Your task to perform on an android device: Clear all items from cart on bestbuy.com. Search for bose soundlink on bestbuy.com, select the first entry, and add it to the cart. Image 0: 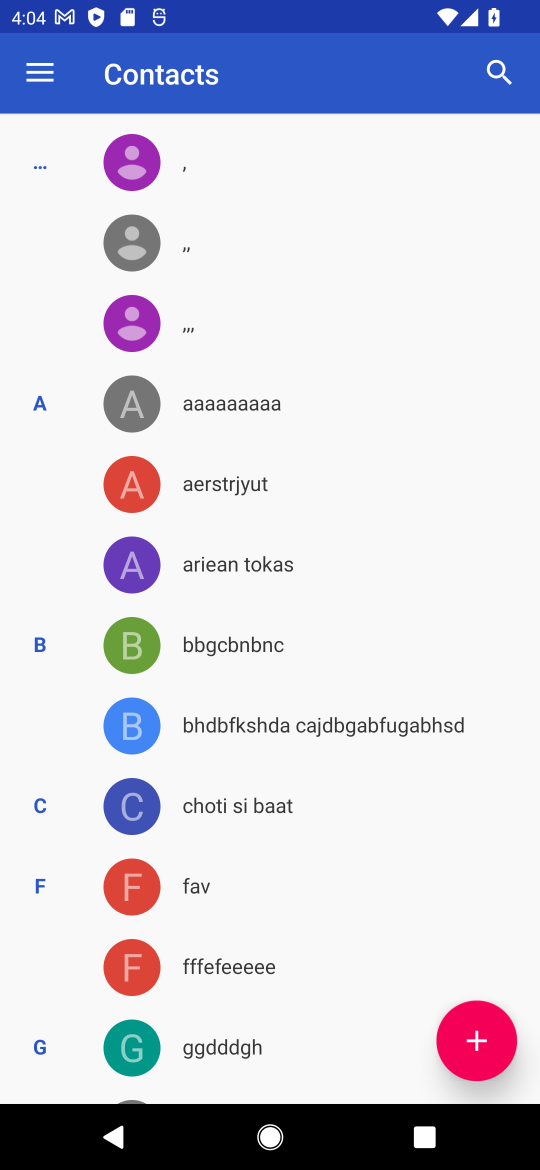
Step 0: press home button
Your task to perform on an android device: Clear all items from cart on bestbuy.com. Search for bose soundlink on bestbuy.com, select the first entry, and add it to the cart. Image 1: 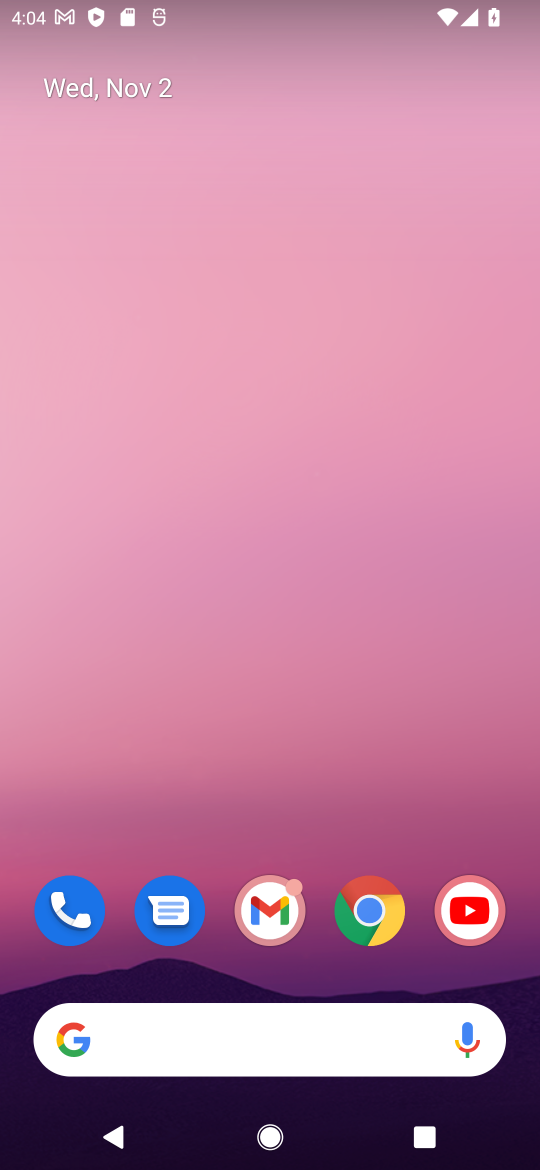
Step 1: click (363, 936)
Your task to perform on an android device: Clear all items from cart on bestbuy.com. Search for bose soundlink on bestbuy.com, select the first entry, and add it to the cart. Image 2: 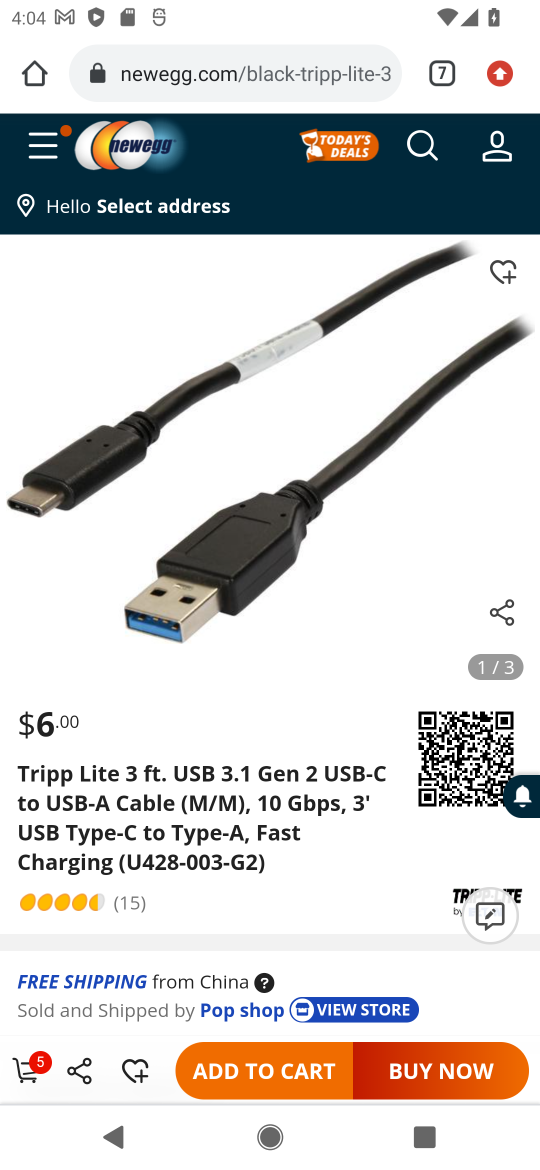
Step 2: press home button
Your task to perform on an android device: Clear all items from cart on bestbuy.com. Search for bose soundlink on bestbuy.com, select the first entry, and add it to the cart. Image 3: 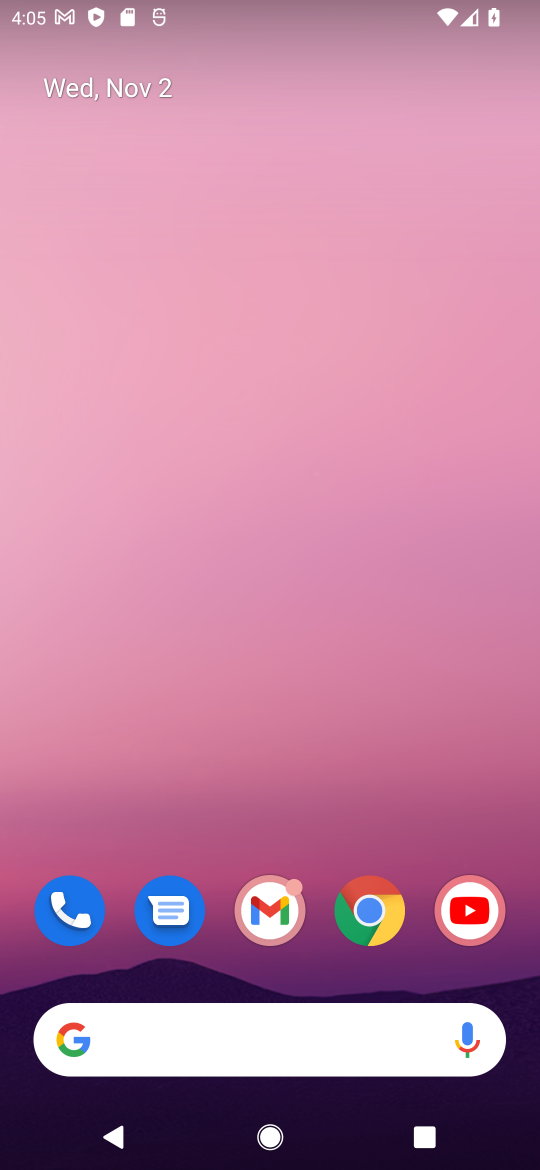
Step 3: click (383, 912)
Your task to perform on an android device: Clear all items from cart on bestbuy.com. Search for bose soundlink on bestbuy.com, select the first entry, and add it to the cart. Image 4: 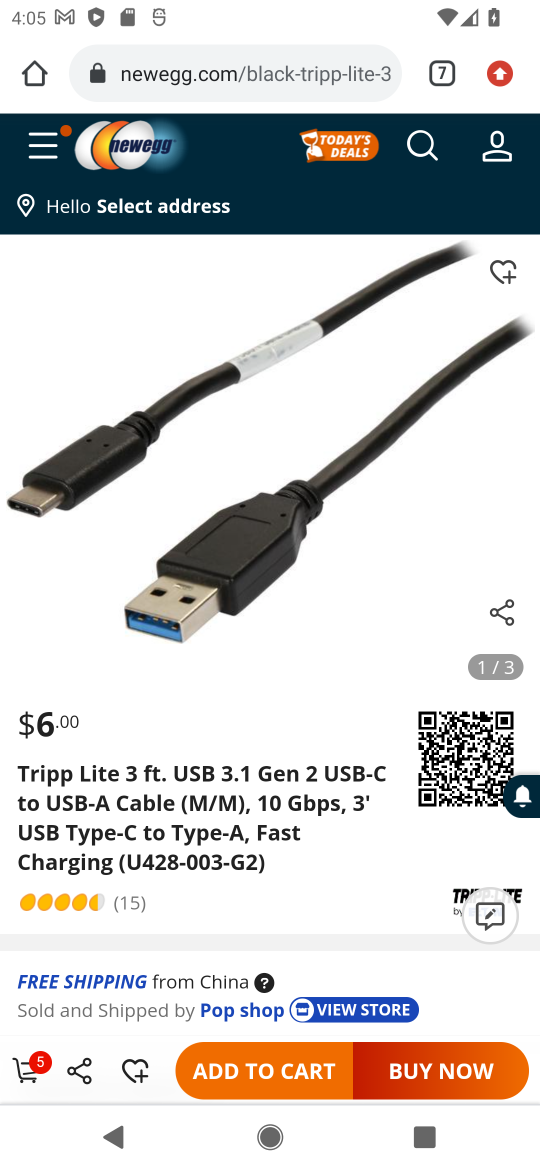
Step 4: click (446, 69)
Your task to perform on an android device: Clear all items from cart on bestbuy.com. Search for bose soundlink on bestbuy.com, select the first entry, and add it to the cart. Image 5: 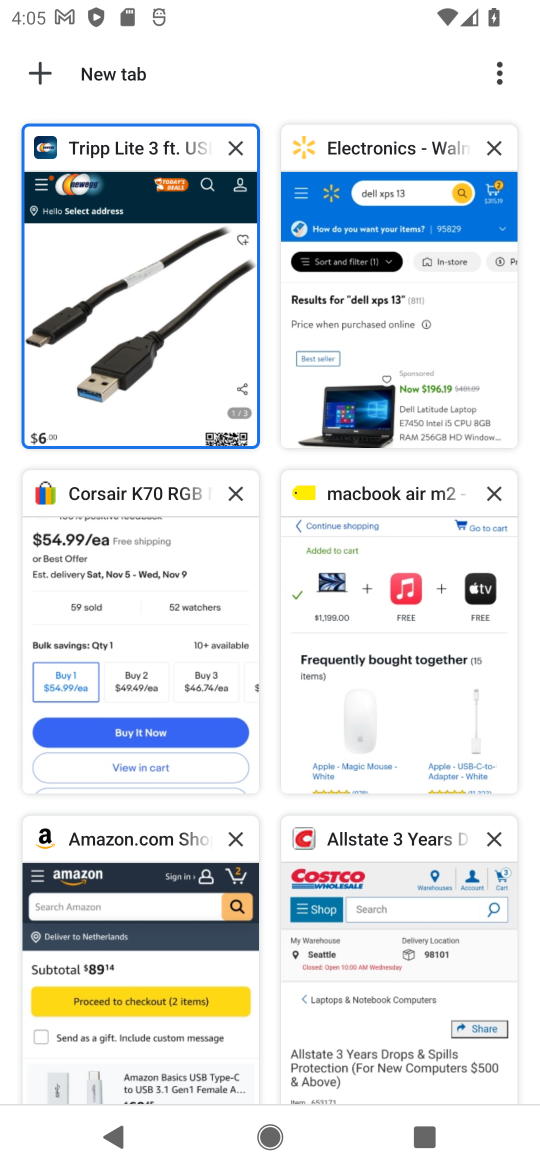
Step 5: click (387, 668)
Your task to perform on an android device: Clear all items from cart on bestbuy.com. Search for bose soundlink on bestbuy.com, select the first entry, and add it to the cart. Image 6: 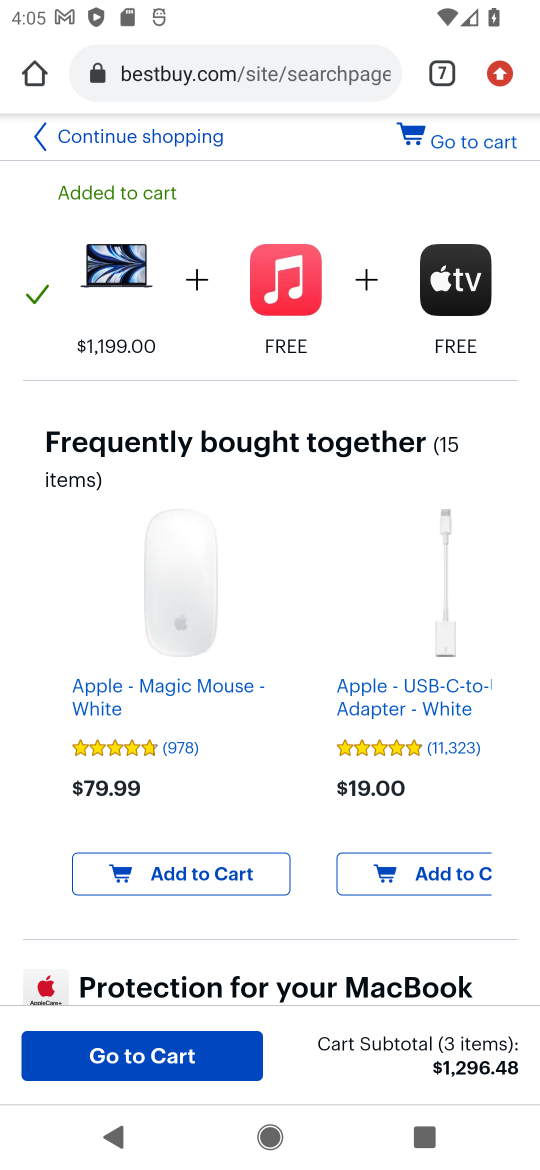
Step 6: click (455, 136)
Your task to perform on an android device: Clear all items from cart on bestbuy.com. Search for bose soundlink on bestbuy.com, select the first entry, and add it to the cart. Image 7: 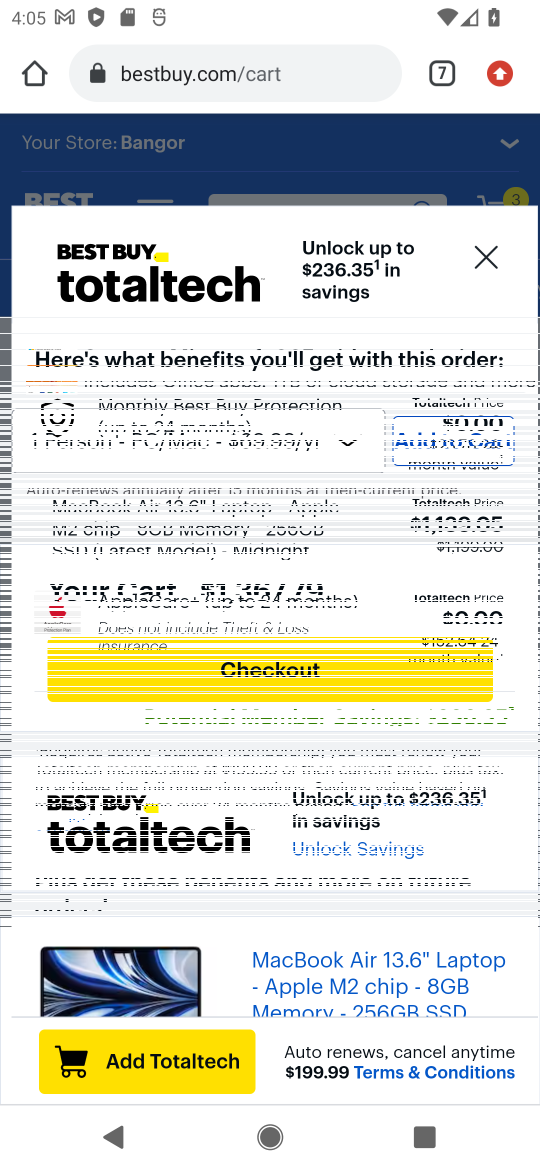
Step 7: click (490, 251)
Your task to perform on an android device: Clear all items from cart on bestbuy.com. Search for bose soundlink on bestbuy.com, select the first entry, and add it to the cart. Image 8: 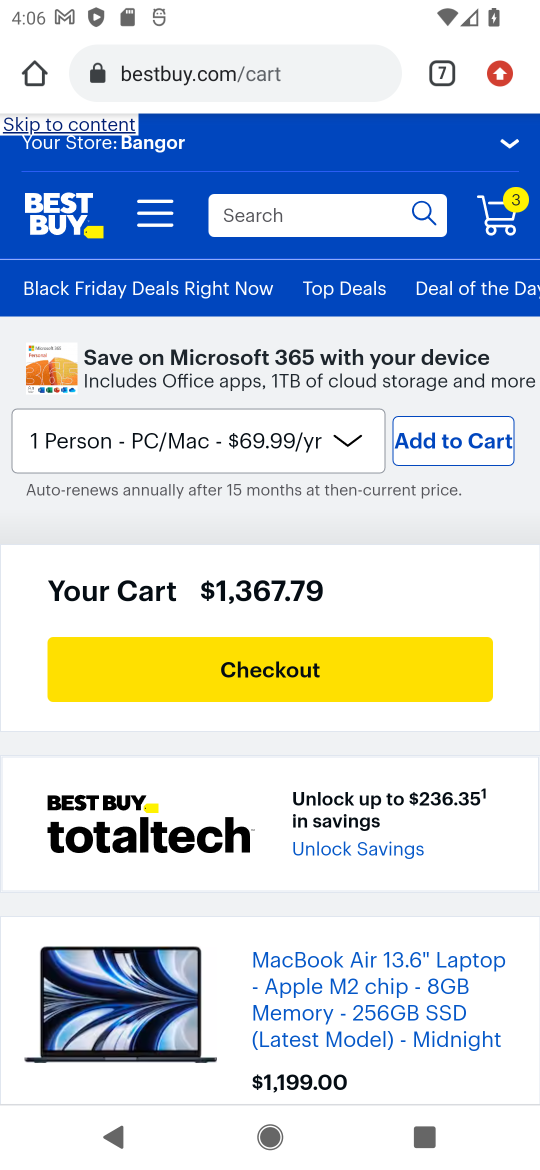
Step 8: drag from (304, 892) to (377, 259)
Your task to perform on an android device: Clear all items from cart on bestbuy.com. Search for bose soundlink on bestbuy.com, select the first entry, and add it to the cart. Image 9: 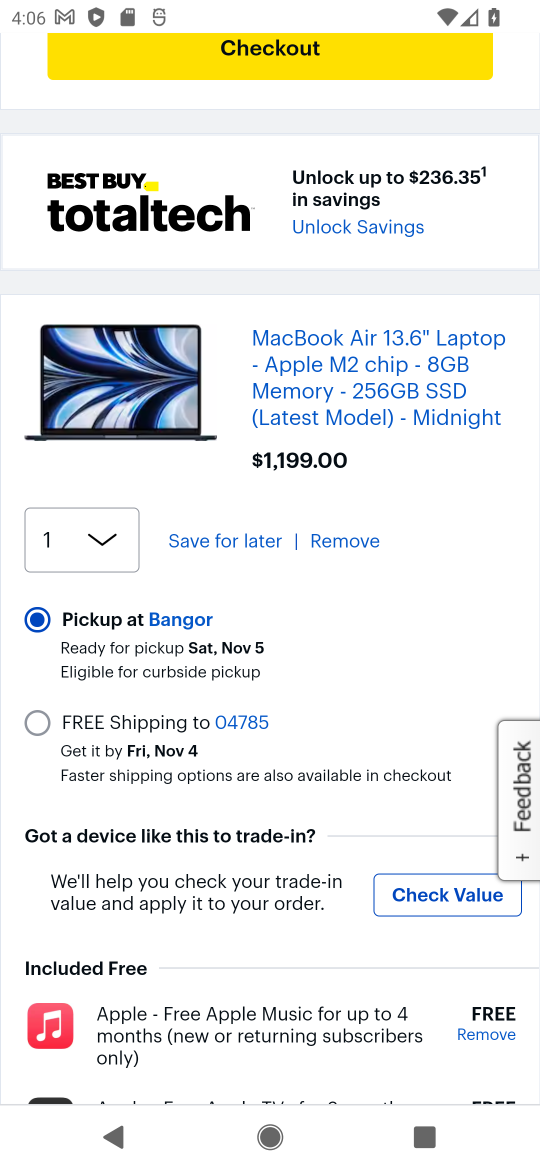
Step 9: click (341, 542)
Your task to perform on an android device: Clear all items from cart on bestbuy.com. Search for bose soundlink on bestbuy.com, select the first entry, and add it to the cart. Image 10: 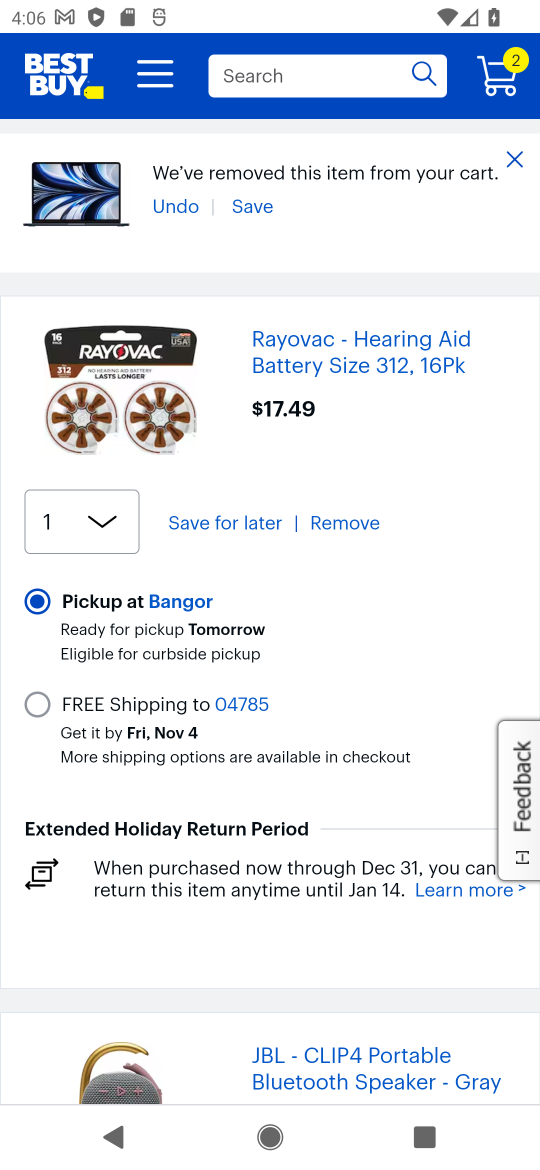
Step 10: click (360, 520)
Your task to perform on an android device: Clear all items from cart on bestbuy.com. Search for bose soundlink on bestbuy.com, select the first entry, and add it to the cart. Image 11: 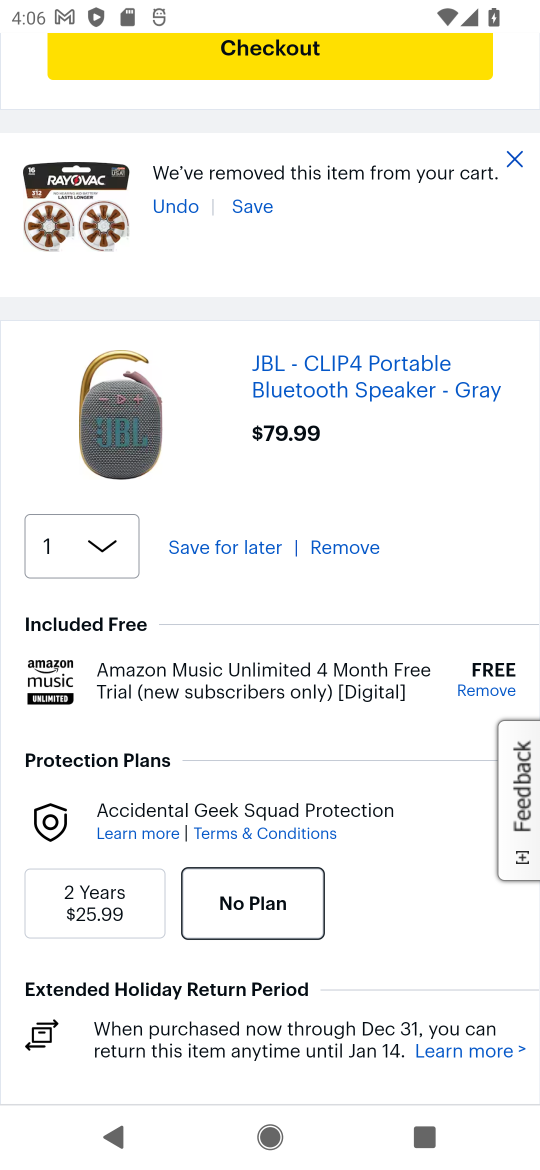
Step 11: click (350, 548)
Your task to perform on an android device: Clear all items from cart on bestbuy.com. Search for bose soundlink on bestbuy.com, select the first entry, and add it to the cart. Image 12: 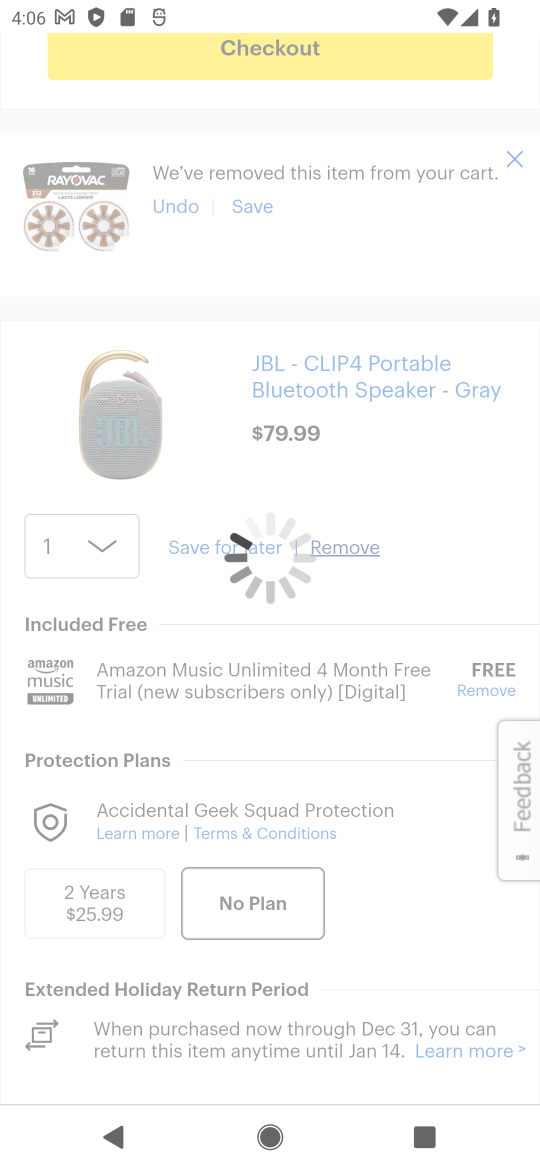
Step 12: click (350, 548)
Your task to perform on an android device: Clear all items from cart on bestbuy.com. Search for bose soundlink on bestbuy.com, select the first entry, and add it to the cart. Image 13: 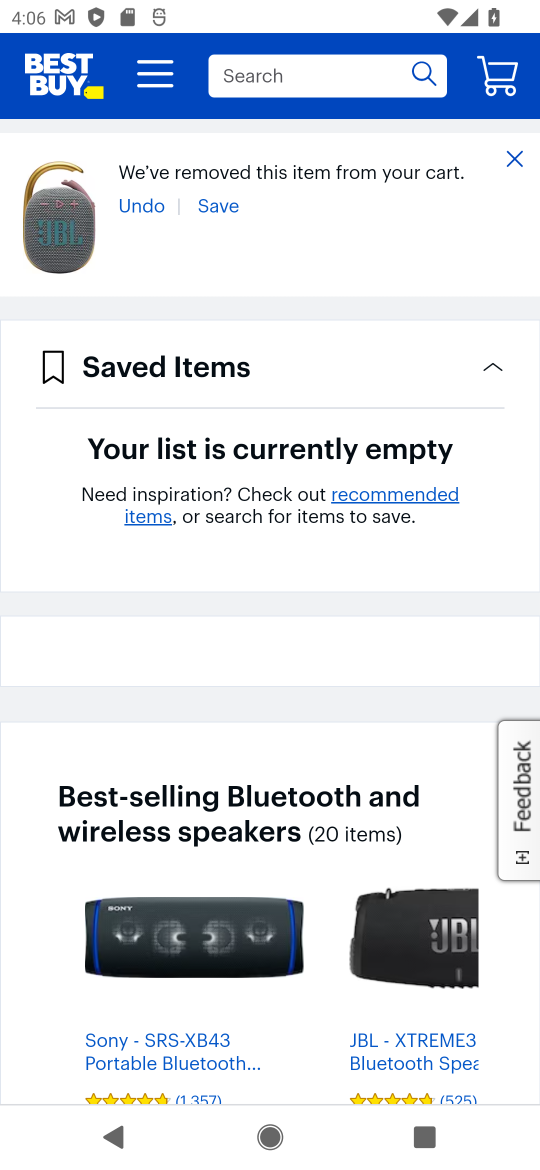
Step 13: click (324, 69)
Your task to perform on an android device: Clear all items from cart on bestbuy.com. Search for bose soundlink on bestbuy.com, select the first entry, and add it to the cart. Image 14: 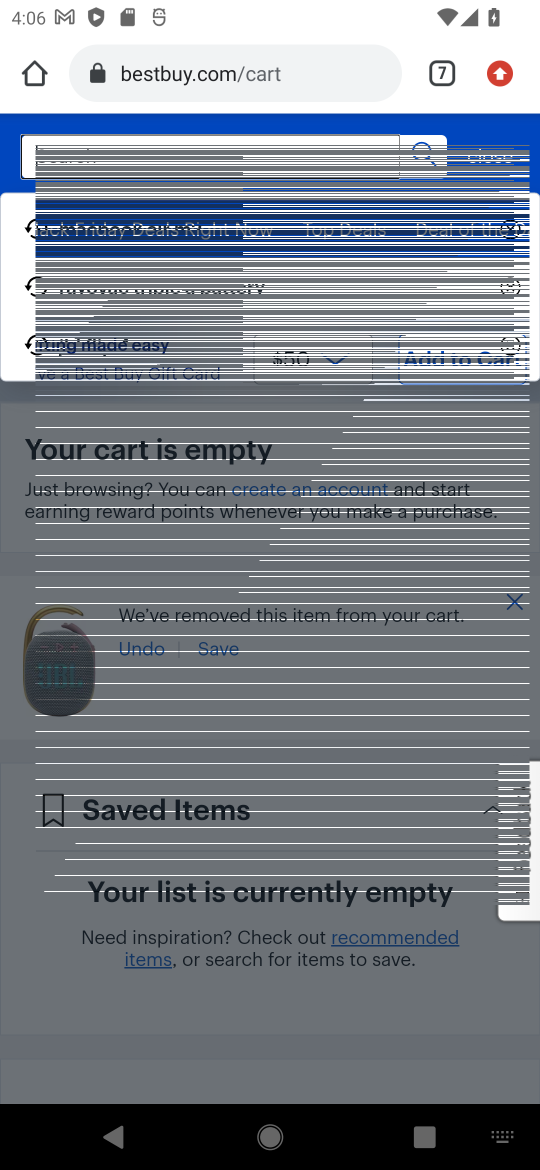
Step 14: type "bose soundlink"
Your task to perform on an android device: Clear all items from cart on bestbuy.com. Search for bose soundlink on bestbuy.com, select the first entry, and add it to the cart. Image 15: 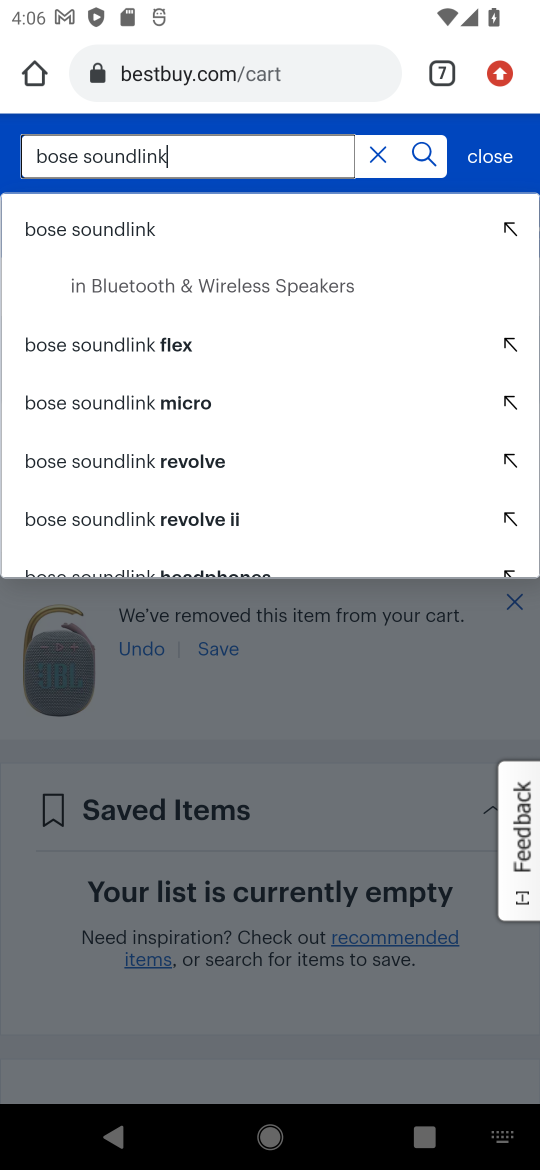
Step 15: click (123, 225)
Your task to perform on an android device: Clear all items from cart on bestbuy.com. Search for bose soundlink on bestbuy.com, select the first entry, and add it to the cart. Image 16: 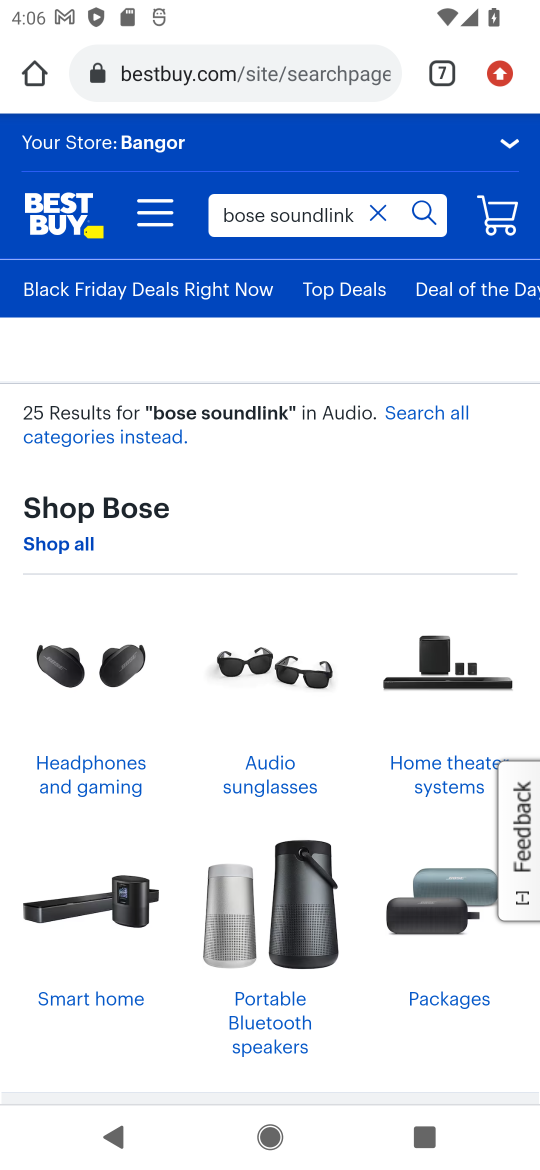
Step 16: drag from (167, 972) to (256, 382)
Your task to perform on an android device: Clear all items from cart on bestbuy.com. Search for bose soundlink on bestbuy.com, select the first entry, and add it to the cart. Image 17: 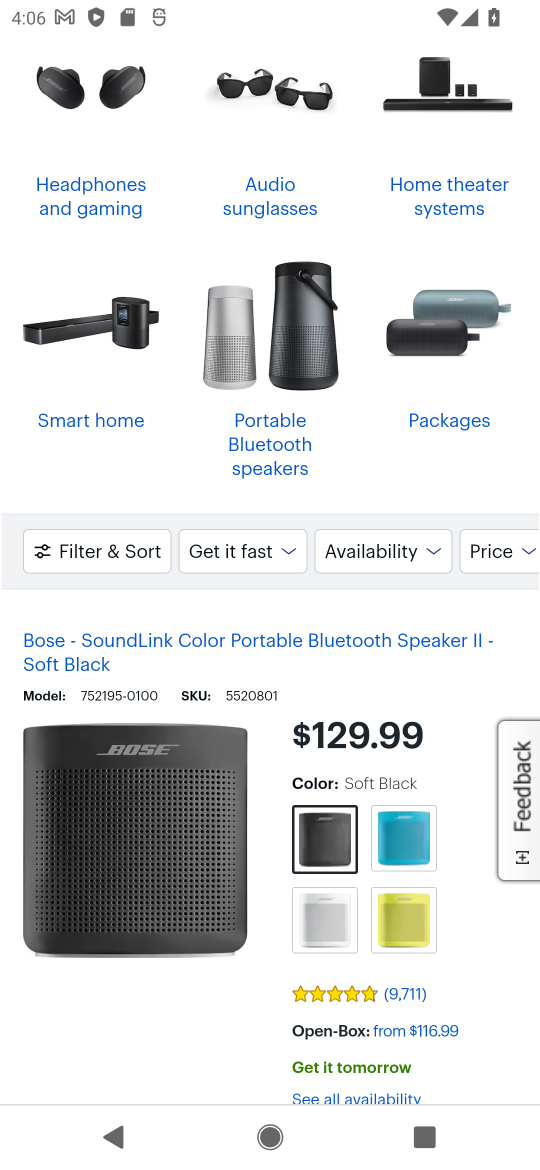
Step 17: drag from (376, 939) to (379, 394)
Your task to perform on an android device: Clear all items from cart on bestbuy.com. Search for bose soundlink on bestbuy.com, select the first entry, and add it to the cart. Image 18: 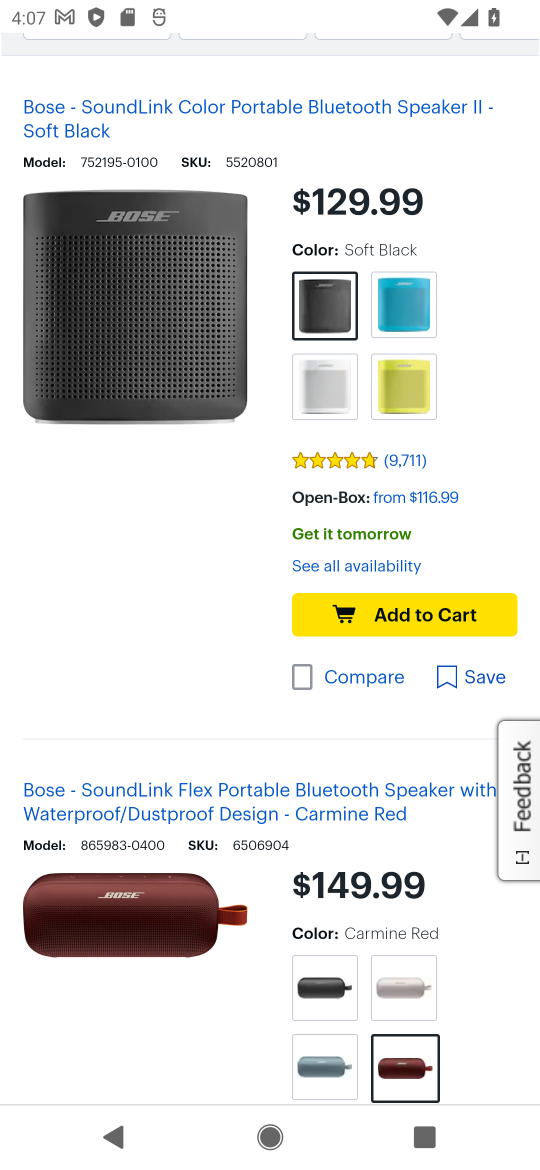
Step 18: click (414, 619)
Your task to perform on an android device: Clear all items from cart on bestbuy.com. Search for bose soundlink on bestbuy.com, select the first entry, and add it to the cart. Image 19: 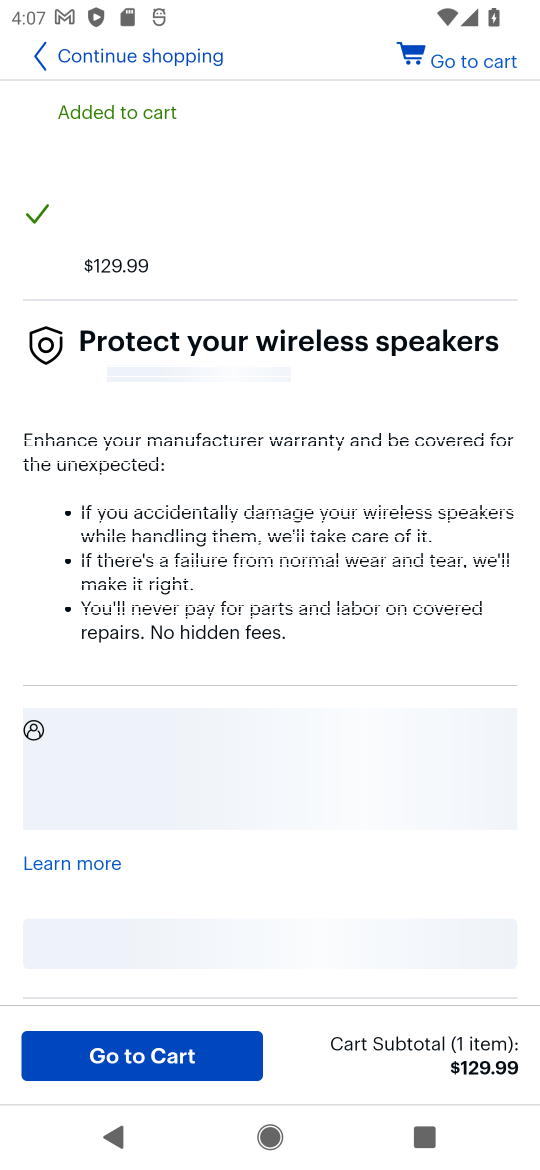
Step 19: task complete